Your task to perform on an android device: Go to Maps Image 0: 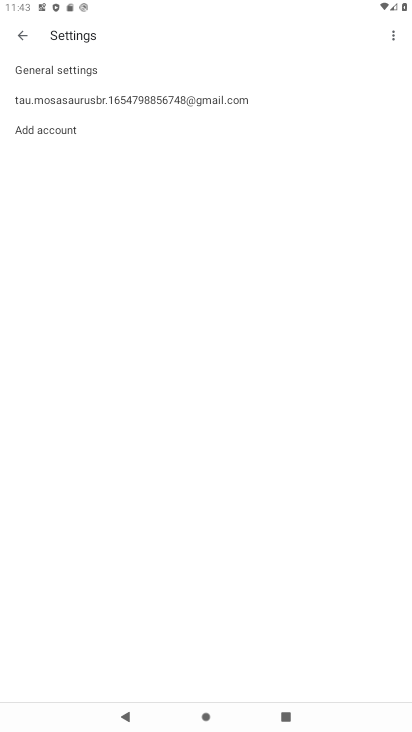
Step 0: press home button
Your task to perform on an android device: Go to Maps Image 1: 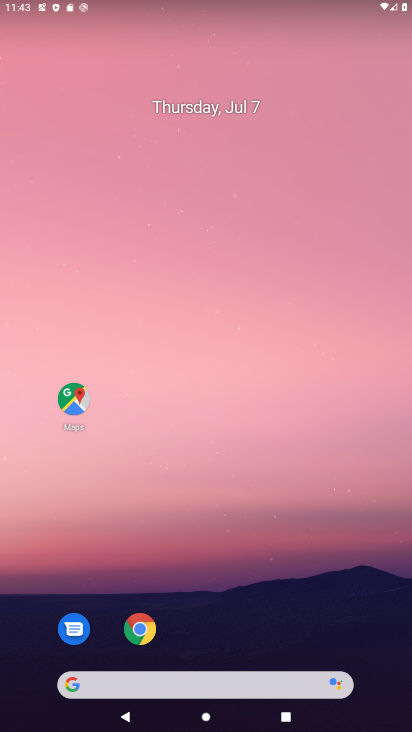
Step 1: click (72, 400)
Your task to perform on an android device: Go to Maps Image 2: 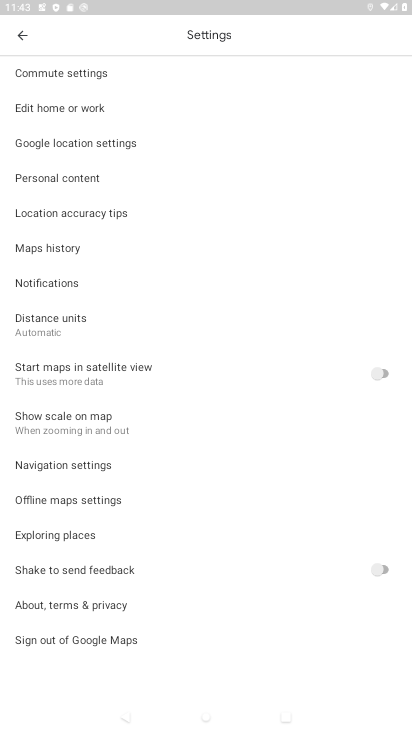
Step 2: task complete